Your task to perform on an android device: open sync settings in chrome Image 0: 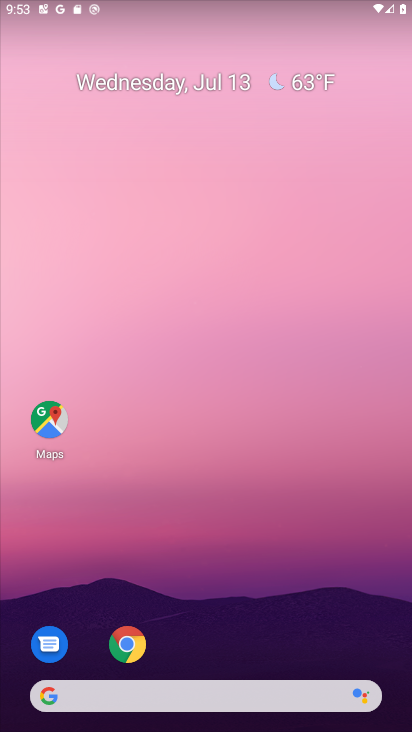
Step 0: click (126, 648)
Your task to perform on an android device: open sync settings in chrome Image 1: 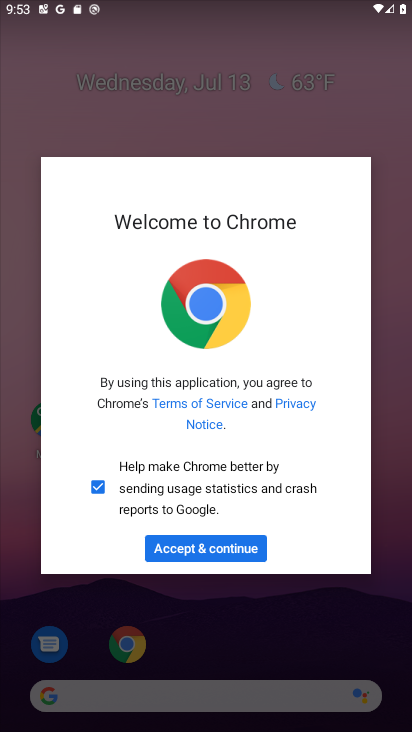
Step 1: click (243, 530)
Your task to perform on an android device: open sync settings in chrome Image 2: 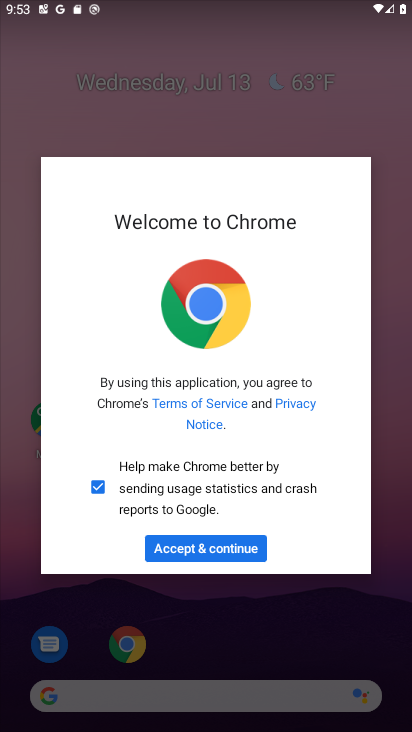
Step 2: click (246, 556)
Your task to perform on an android device: open sync settings in chrome Image 3: 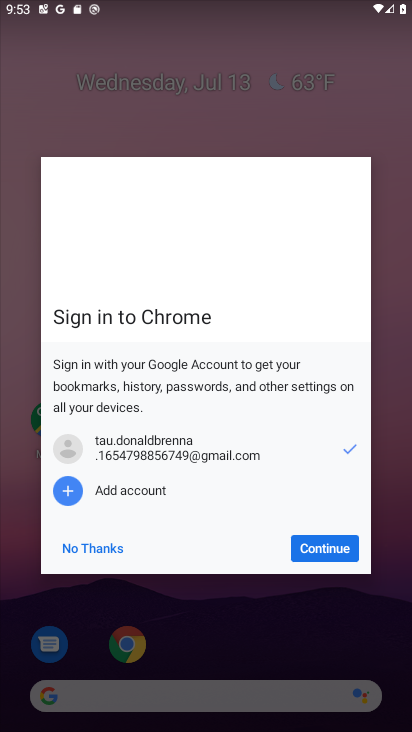
Step 3: click (319, 543)
Your task to perform on an android device: open sync settings in chrome Image 4: 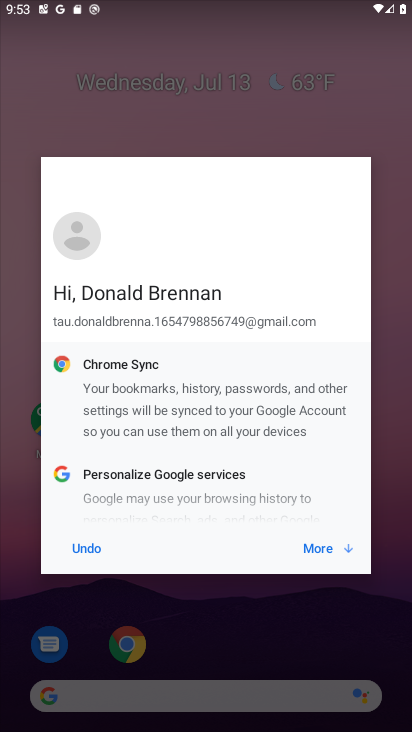
Step 4: click (321, 543)
Your task to perform on an android device: open sync settings in chrome Image 5: 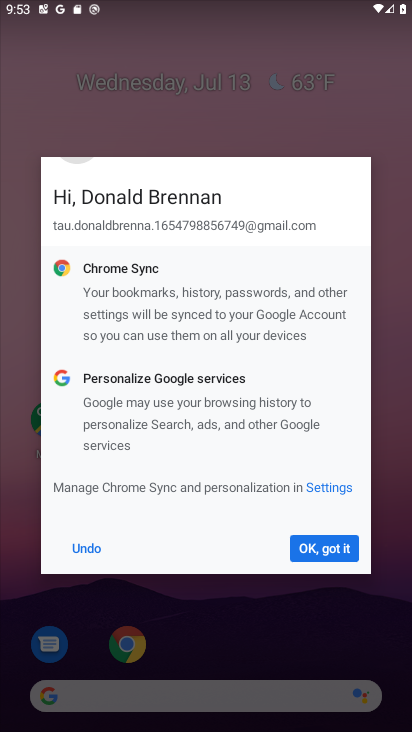
Step 5: click (321, 543)
Your task to perform on an android device: open sync settings in chrome Image 6: 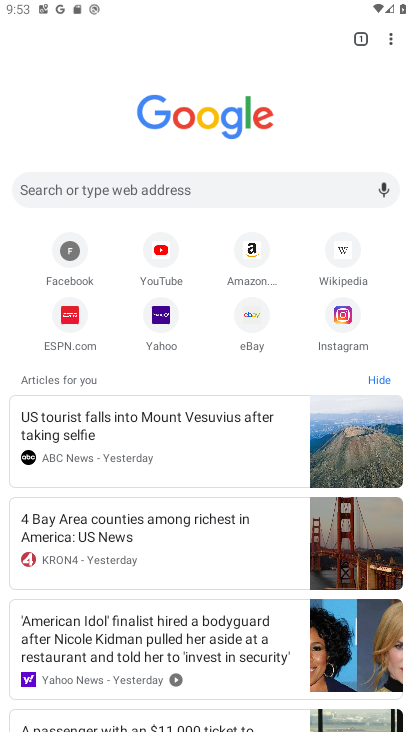
Step 6: drag from (393, 38) to (286, 362)
Your task to perform on an android device: open sync settings in chrome Image 7: 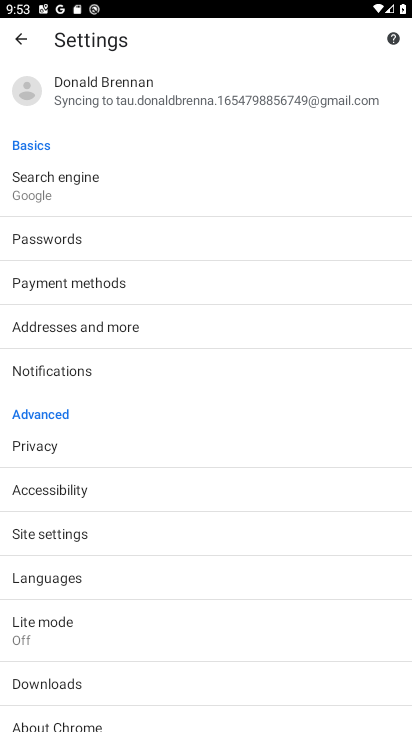
Step 7: click (204, 103)
Your task to perform on an android device: open sync settings in chrome Image 8: 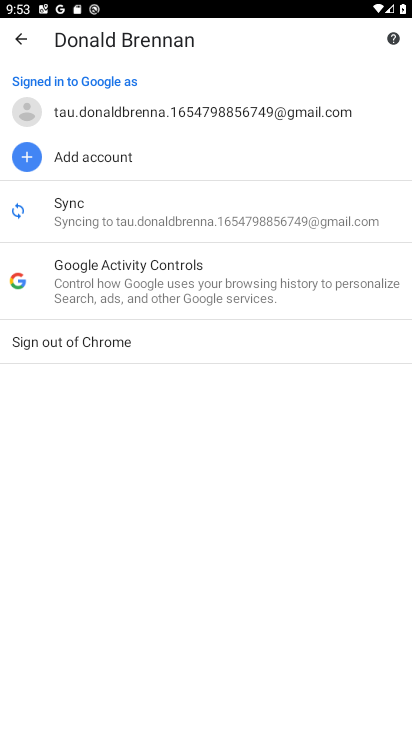
Step 8: click (202, 218)
Your task to perform on an android device: open sync settings in chrome Image 9: 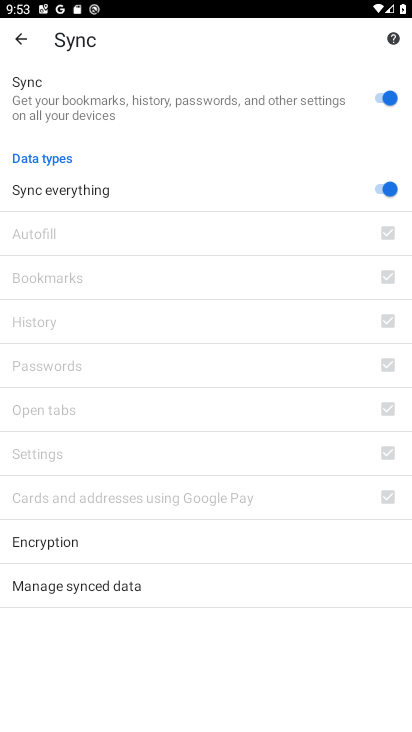
Step 9: task complete